Your task to perform on an android device: turn off data saver in the chrome app Image 0: 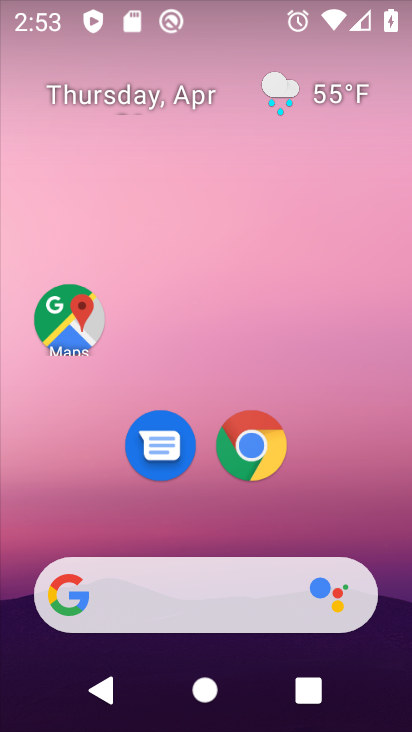
Step 0: click (254, 446)
Your task to perform on an android device: turn off data saver in the chrome app Image 1: 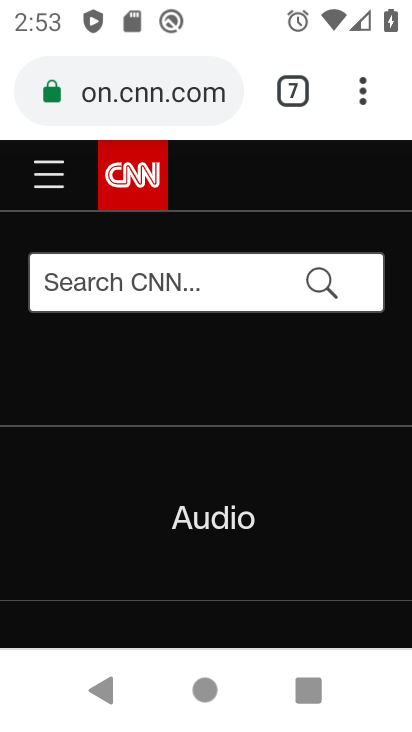
Step 1: drag from (360, 89) to (176, 478)
Your task to perform on an android device: turn off data saver in the chrome app Image 2: 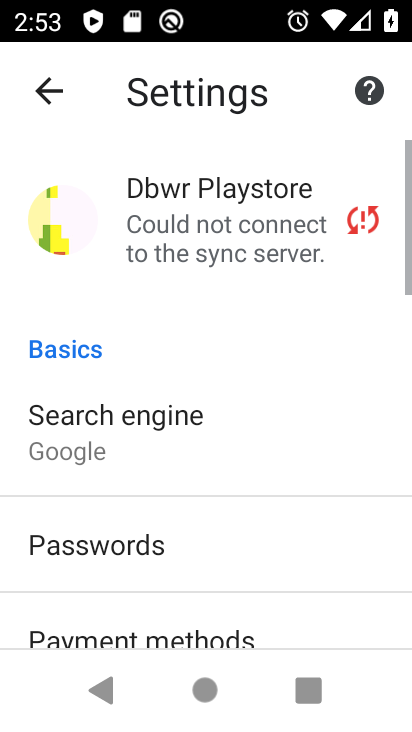
Step 2: drag from (194, 616) to (188, 257)
Your task to perform on an android device: turn off data saver in the chrome app Image 3: 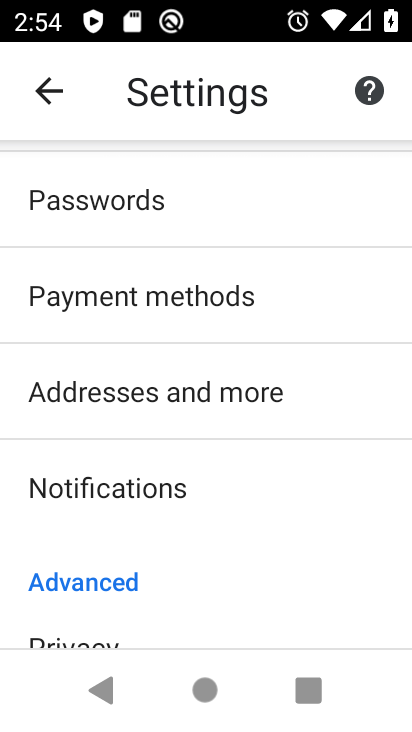
Step 3: drag from (203, 620) to (229, 228)
Your task to perform on an android device: turn off data saver in the chrome app Image 4: 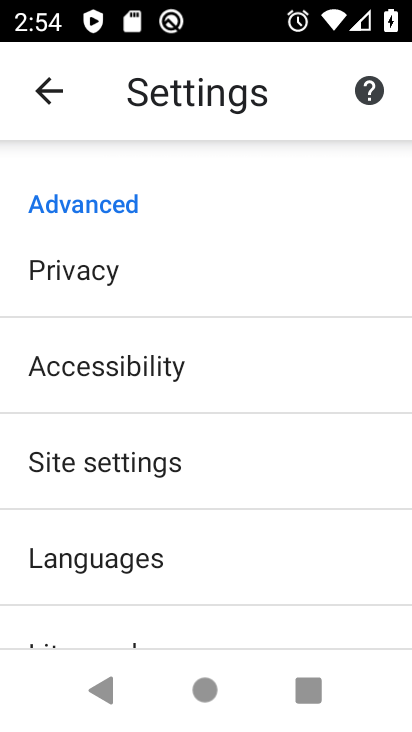
Step 4: drag from (196, 612) to (185, 285)
Your task to perform on an android device: turn off data saver in the chrome app Image 5: 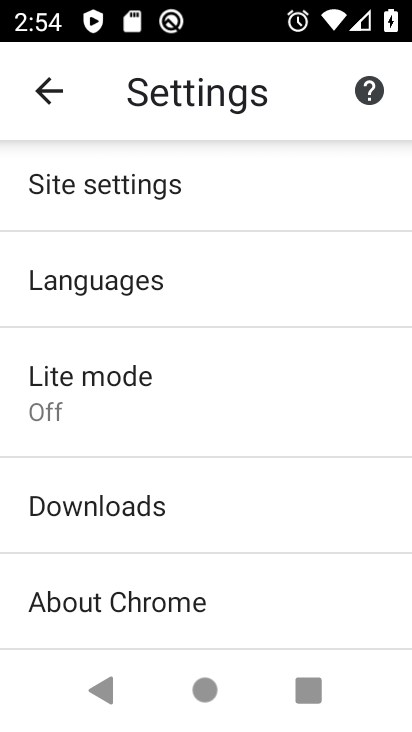
Step 5: click (76, 384)
Your task to perform on an android device: turn off data saver in the chrome app Image 6: 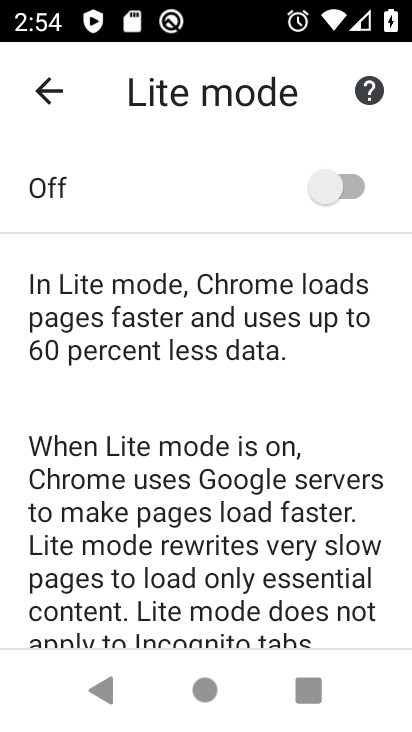
Step 6: task complete